Your task to perform on an android device: Play the last video I watched on Youtube Image 0: 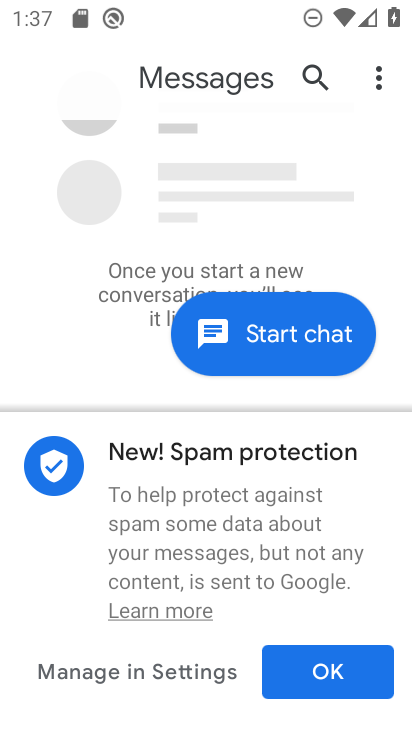
Step 0: press back button
Your task to perform on an android device: Play the last video I watched on Youtube Image 1: 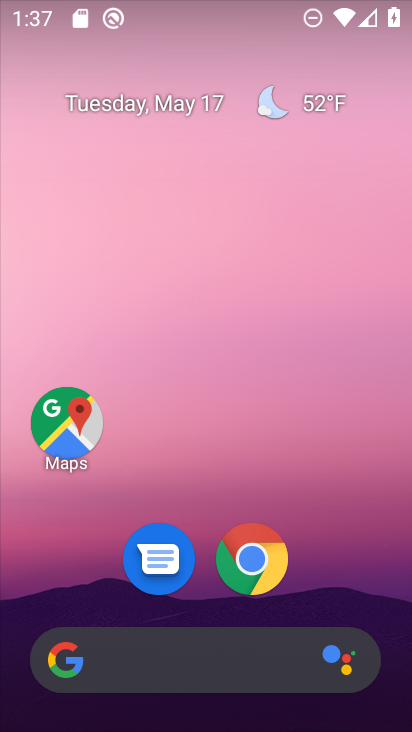
Step 1: drag from (356, 574) to (182, 108)
Your task to perform on an android device: Play the last video I watched on Youtube Image 2: 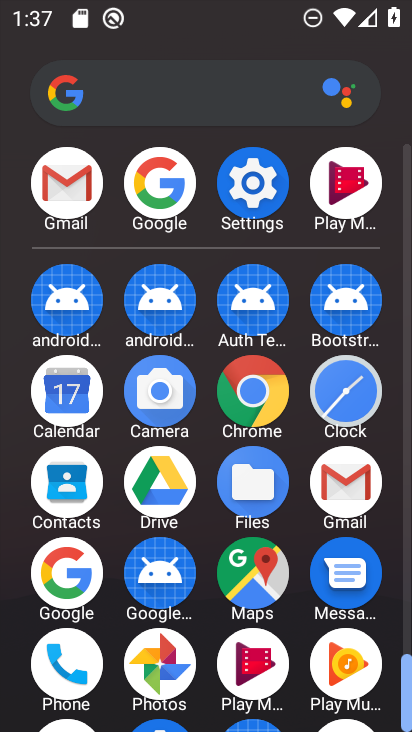
Step 2: drag from (212, 527) to (216, 193)
Your task to perform on an android device: Play the last video I watched on Youtube Image 3: 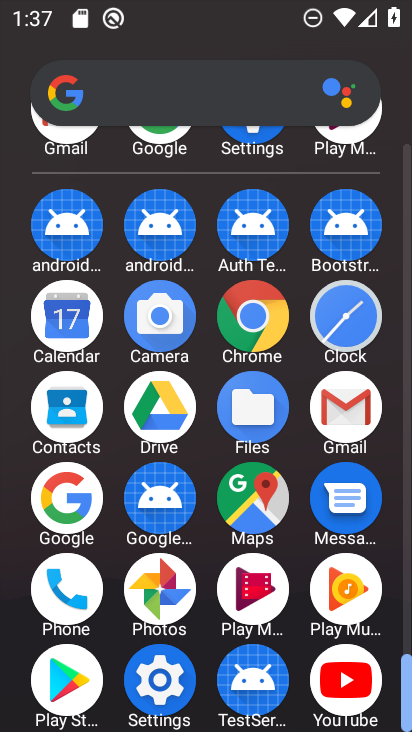
Step 3: click (345, 677)
Your task to perform on an android device: Play the last video I watched on Youtube Image 4: 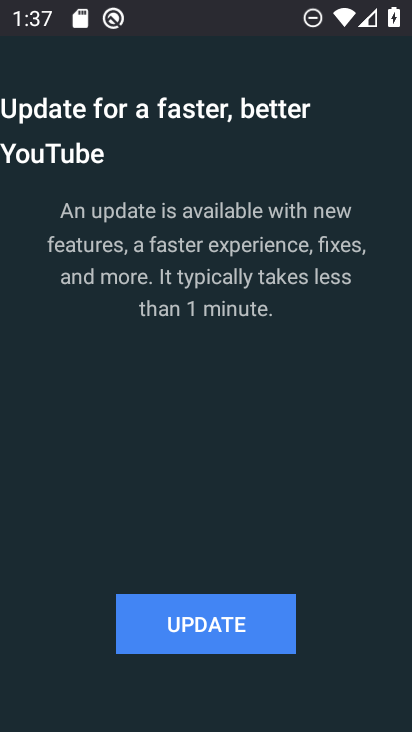
Step 4: click (214, 620)
Your task to perform on an android device: Play the last video I watched on Youtube Image 5: 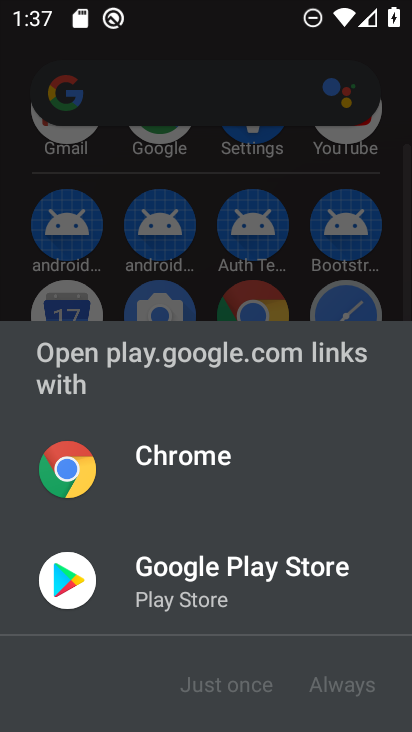
Step 5: click (210, 568)
Your task to perform on an android device: Play the last video I watched on Youtube Image 6: 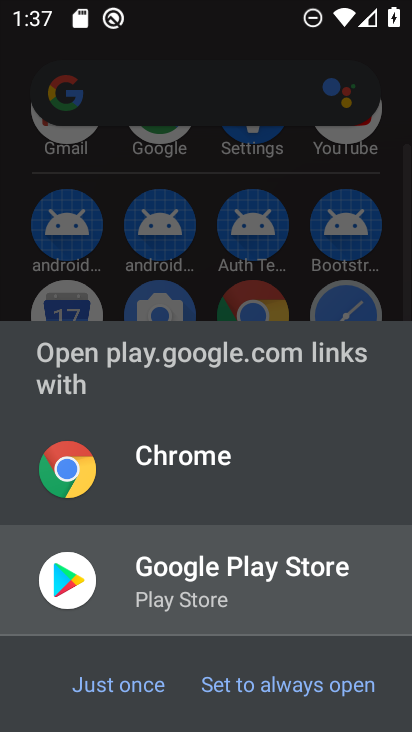
Step 6: click (115, 692)
Your task to perform on an android device: Play the last video I watched on Youtube Image 7: 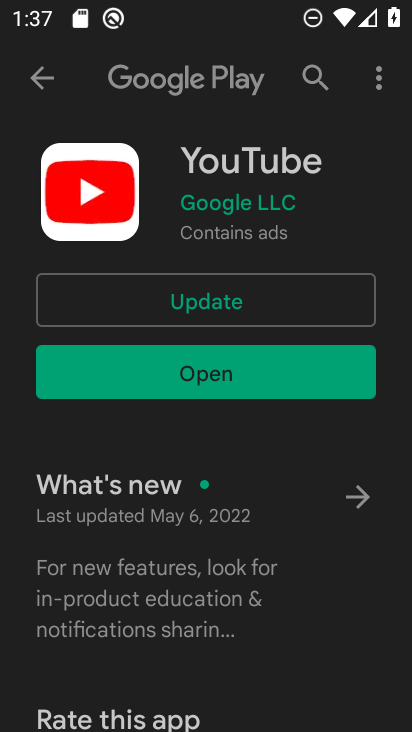
Step 7: click (249, 294)
Your task to perform on an android device: Play the last video I watched on Youtube Image 8: 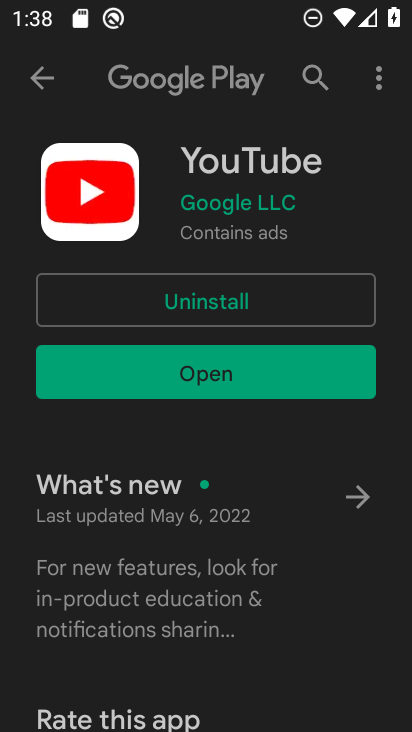
Step 8: click (204, 371)
Your task to perform on an android device: Play the last video I watched on Youtube Image 9: 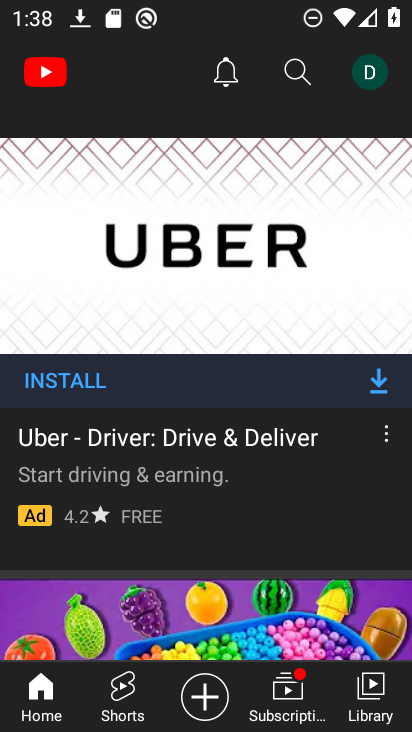
Step 9: click (371, 687)
Your task to perform on an android device: Play the last video I watched on Youtube Image 10: 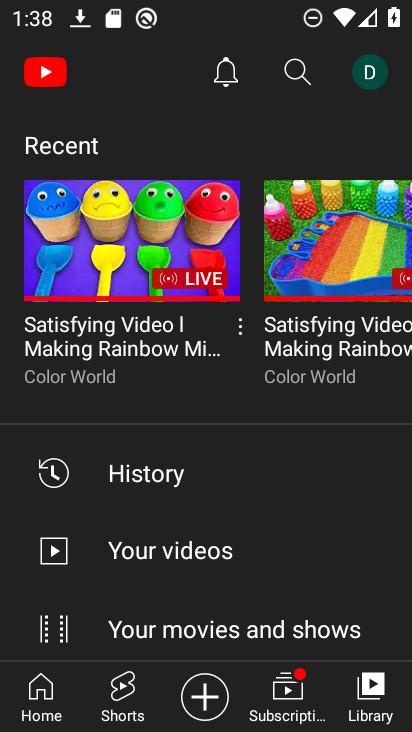
Step 10: click (112, 236)
Your task to perform on an android device: Play the last video I watched on Youtube Image 11: 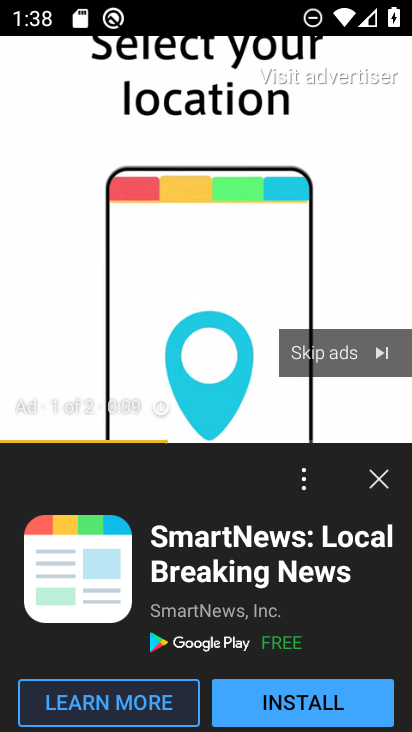
Step 11: click (353, 345)
Your task to perform on an android device: Play the last video I watched on Youtube Image 12: 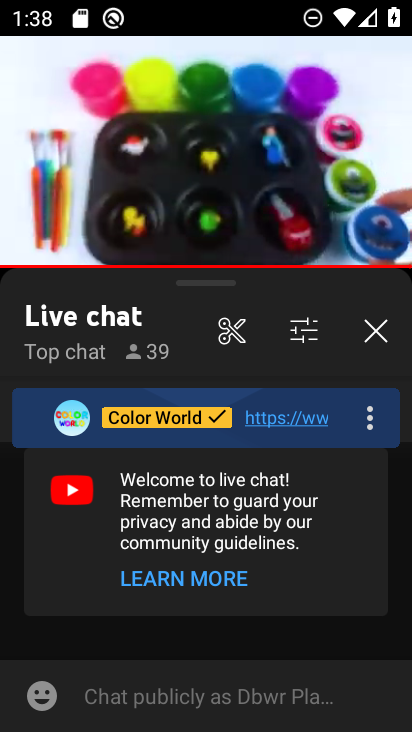
Step 12: task complete